Your task to perform on an android device: check out phone information Image 0: 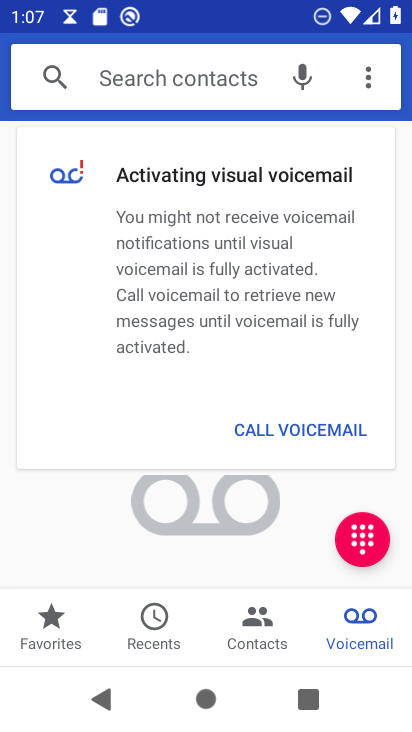
Step 0: press home button
Your task to perform on an android device: check out phone information Image 1: 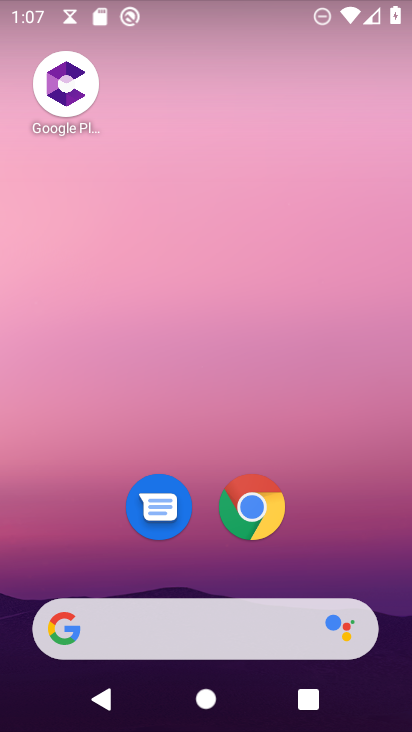
Step 1: drag from (316, 561) to (334, 24)
Your task to perform on an android device: check out phone information Image 2: 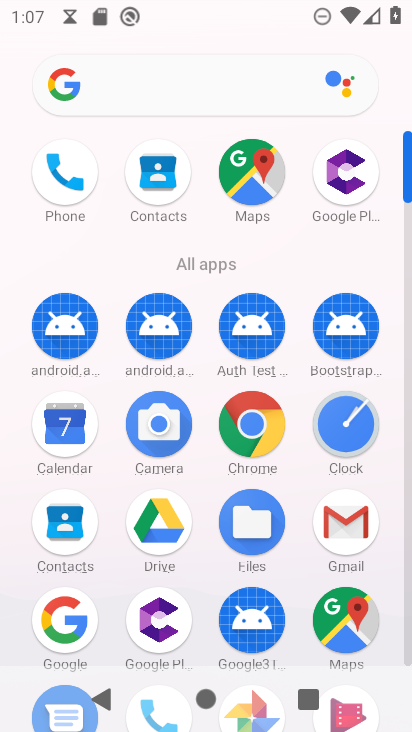
Step 2: drag from (201, 475) to (207, 90)
Your task to perform on an android device: check out phone information Image 3: 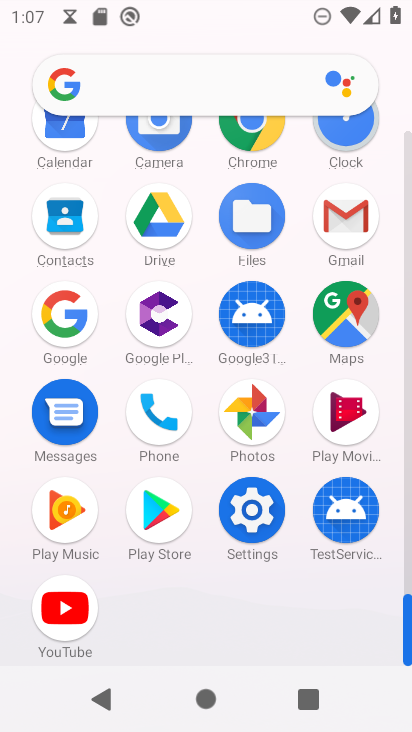
Step 3: click (242, 515)
Your task to perform on an android device: check out phone information Image 4: 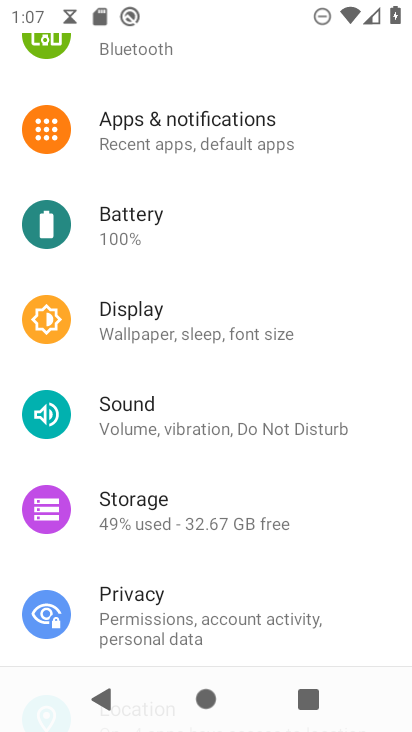
Step 4: drag from (243, 532) to (240, 80)
Your task to perform on an android device: check out phone information Image 5: 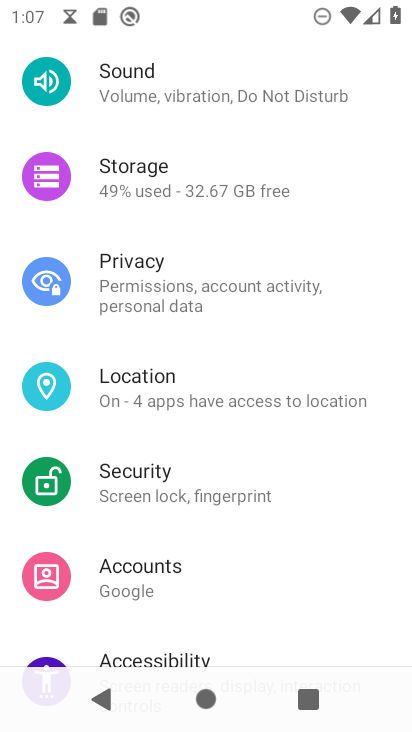
Step 5: drag from (181, 613) to (190, 105)
Your task to perform on an android device: check out phone information Image 6: 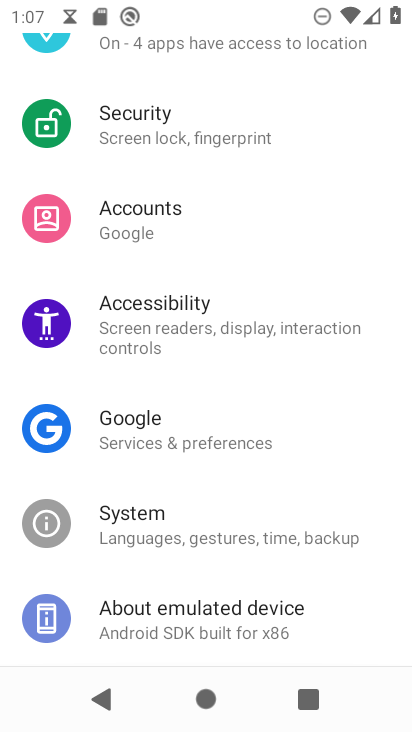
Step 6: drag from (146, 577) to (153, 179)
Your task to perform on an android device: check out phone information Image 7: 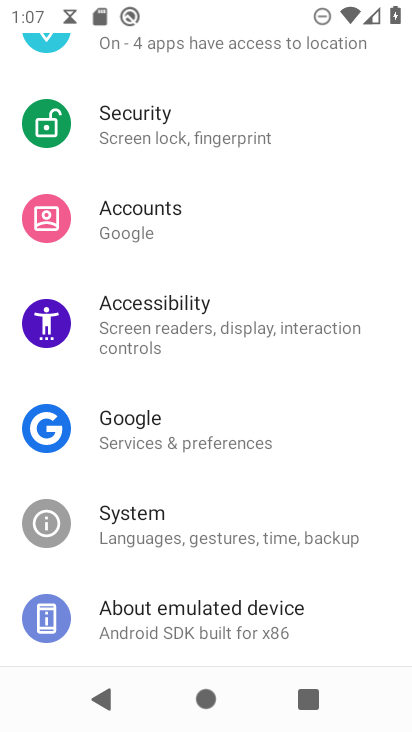
Step 7: click (149, 597)
Your task to perform on an android device: check out phone information Image 8: 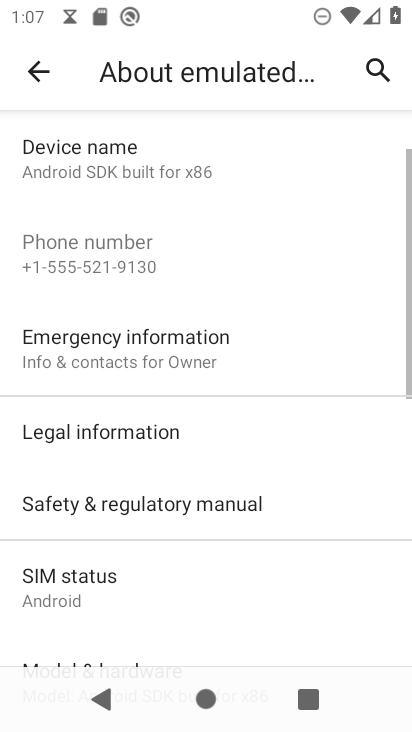
Step 8: task complete